Your task to perform on an android device: change the clock style Image 0: 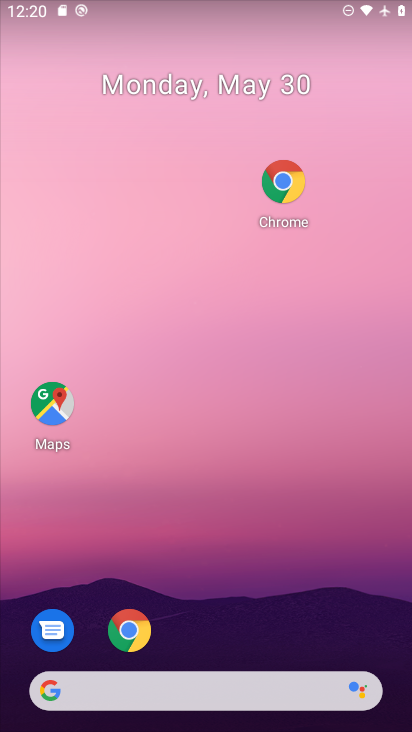
Step 0: drag from (281, 691) to (186, 96)
Your task to perform on an android device: change the clock style Image 1: 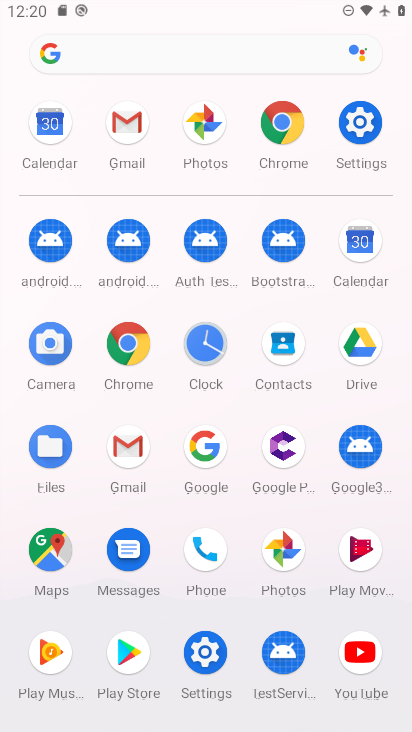
Step 1: click (205, 345)
Your task to perform on an android device: change the clock style Image 2: 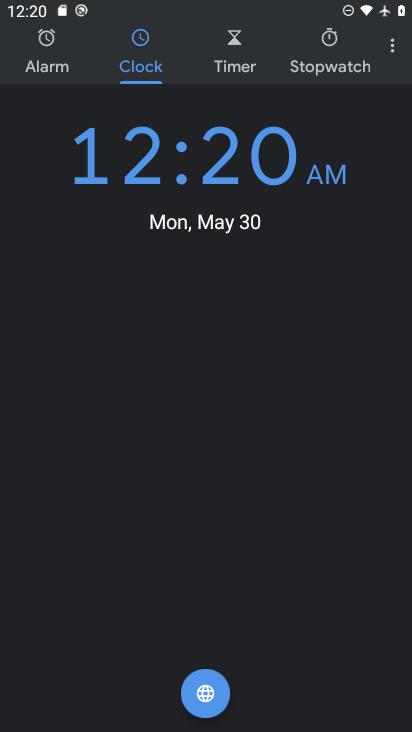
Step 2: click (395, 56)
Your task to perform on an android device: change the clock style Image 3: 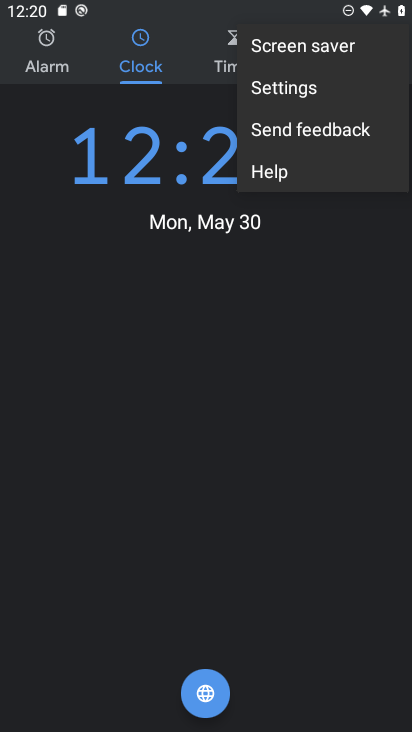
Step 3: click (278, 93)
Your task to perform on an android device: change the clock style Image 4: 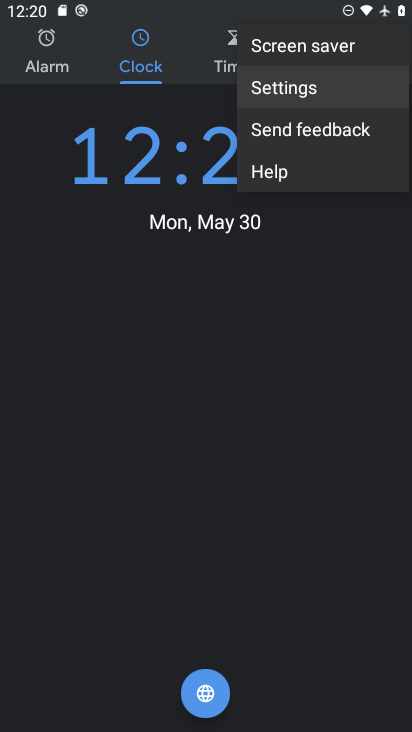
Step 4: click (278, 93)
Your task to perform on an android device: change the clock style Image 5: 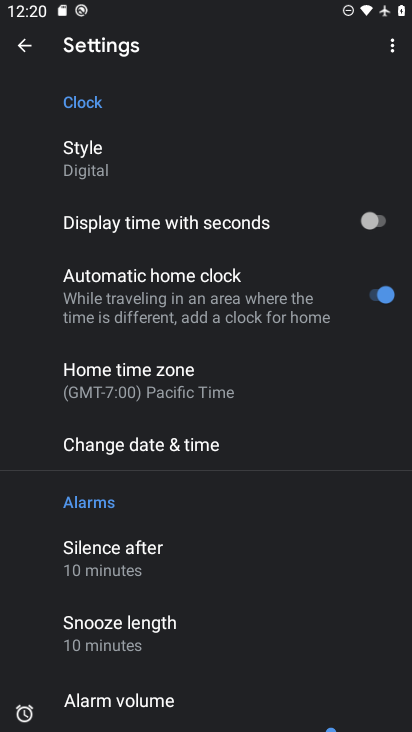
Step 5: click (119, 159)
Your task to perform on an android device: change the clock style Image 6: 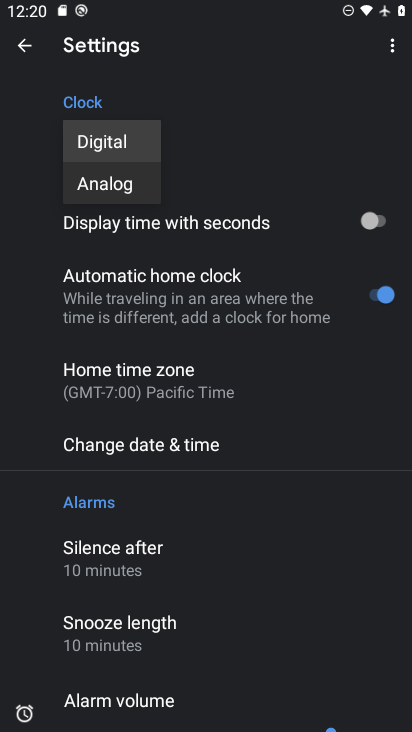
Step 6: click (117, 187)
Your task to perform on an android device: change the clock style Image 7: 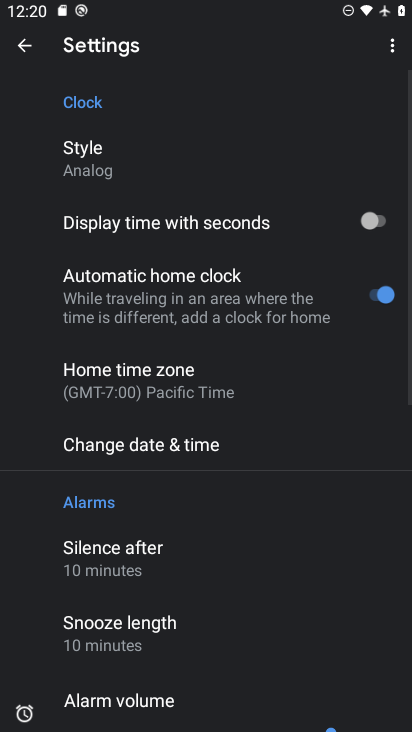
Step 7: task complete